Your task to perform on an android device: Open Youtube and go to "Your channel" Image 0: 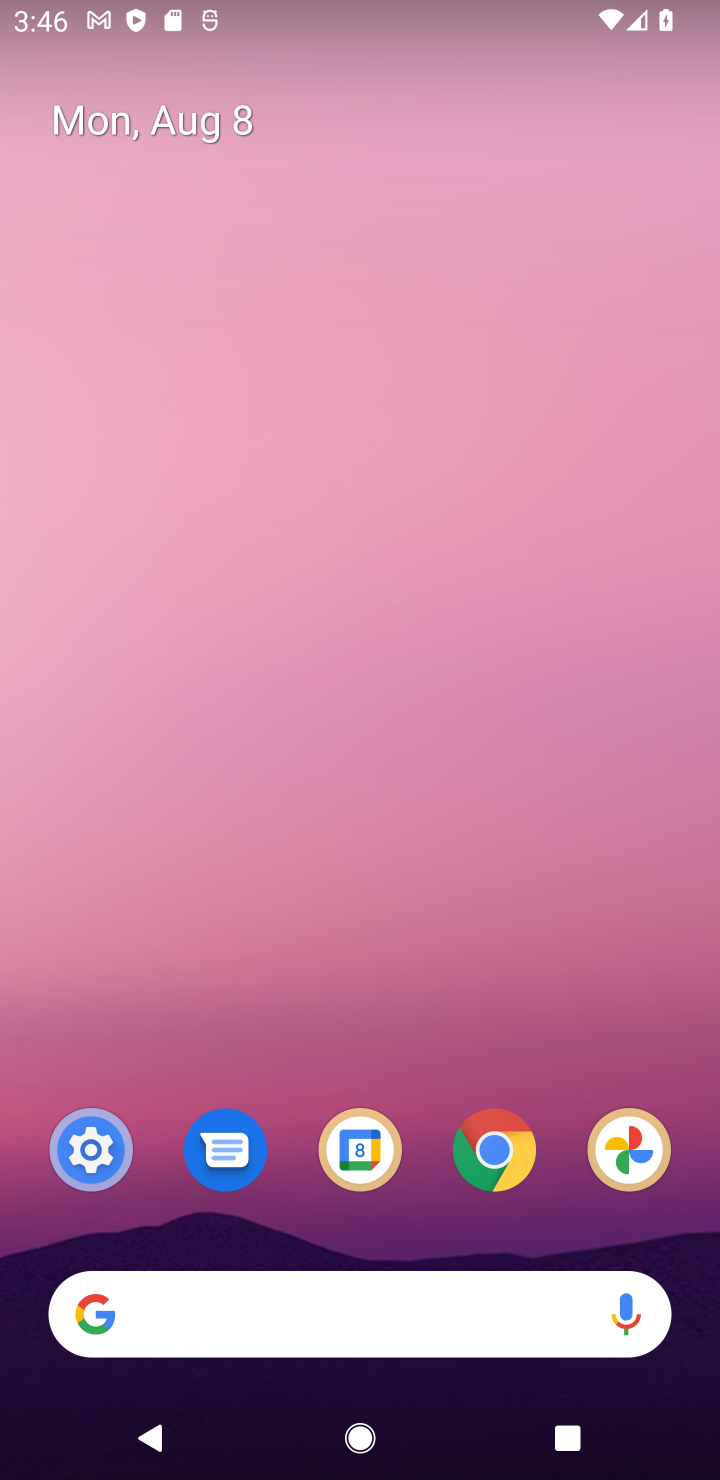
Step 0: drag from (415, 1244) to (368, 241)
Your task to perform on an android device: Open Youtube and go to "Your channel" Image 1: 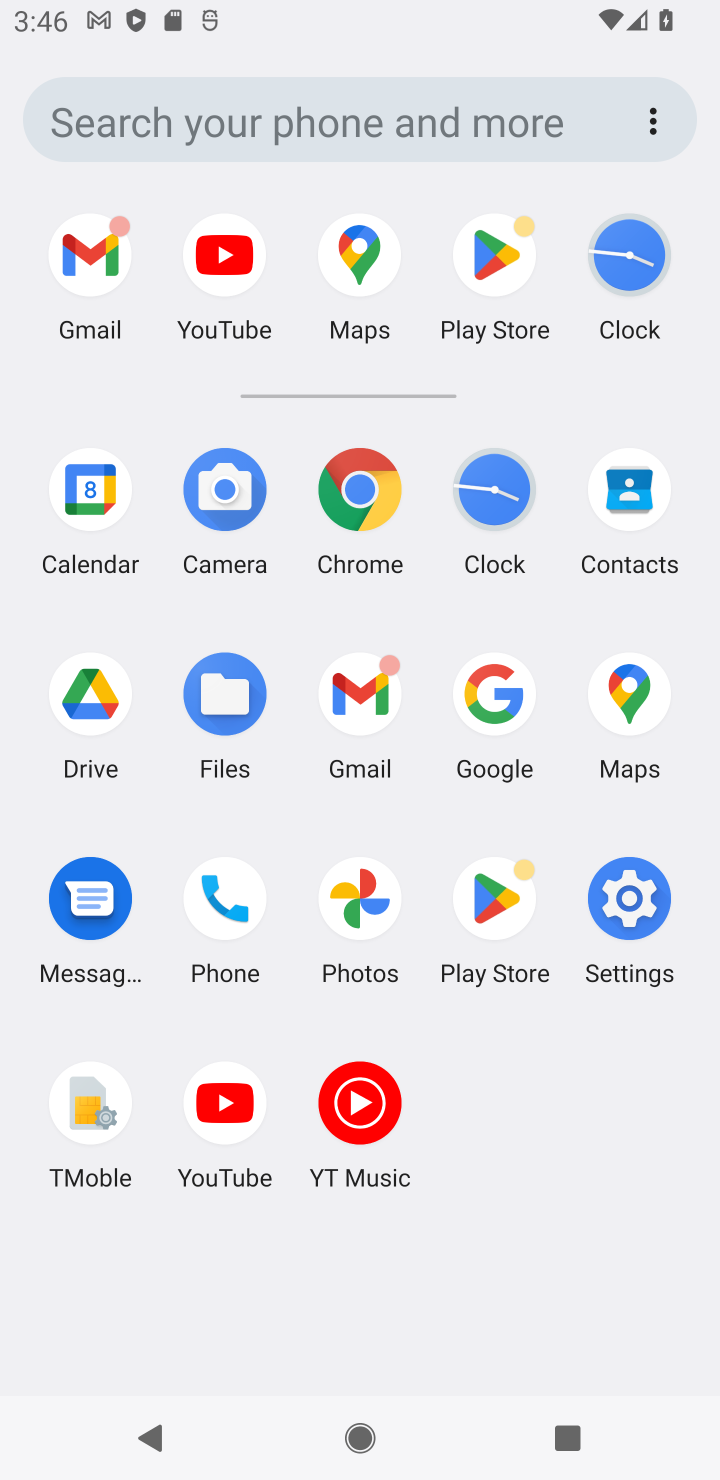
Step 1: click (187, 269)
Your task to perform on an android device: Open Youtube and go to "Your channel" Image 2: 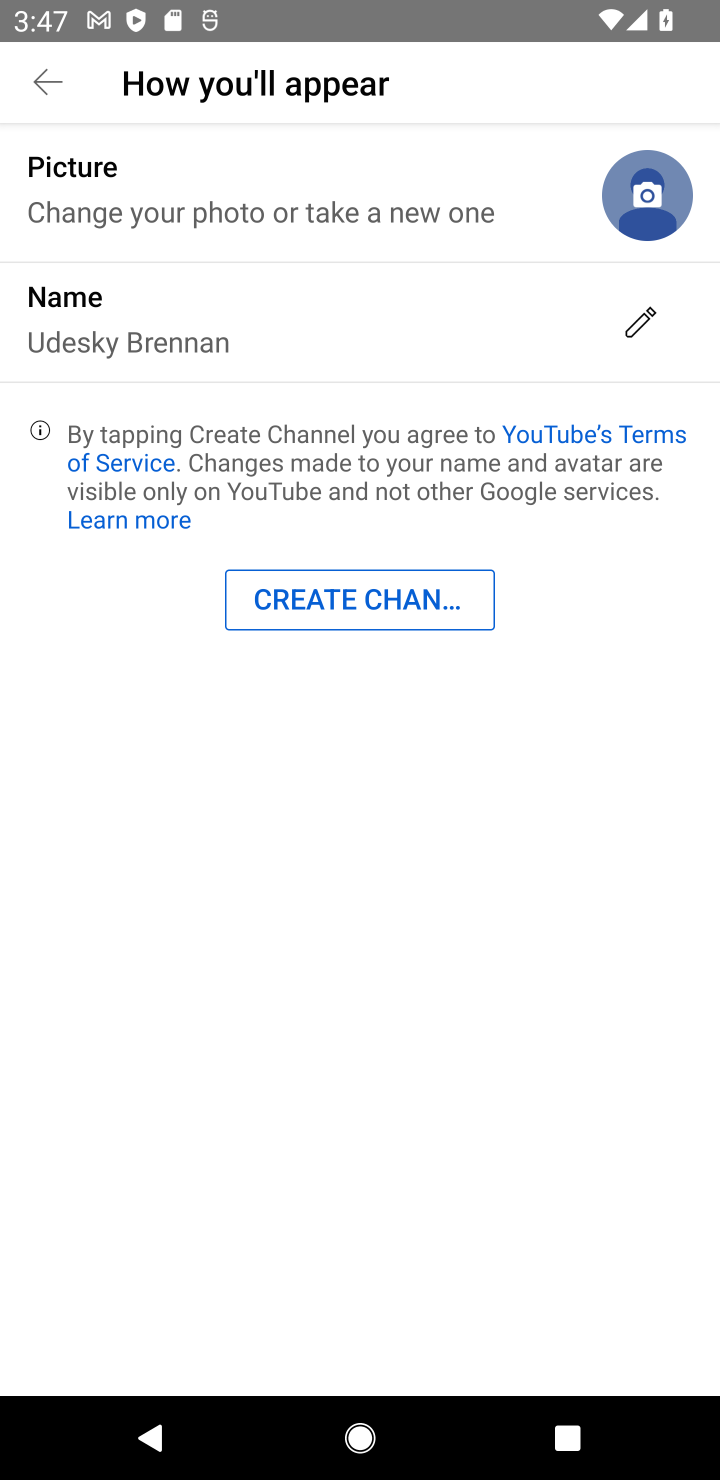
Step 2: task complete